Your task to perform on an android device: turn on showing notifications on the lock screen Image 0: 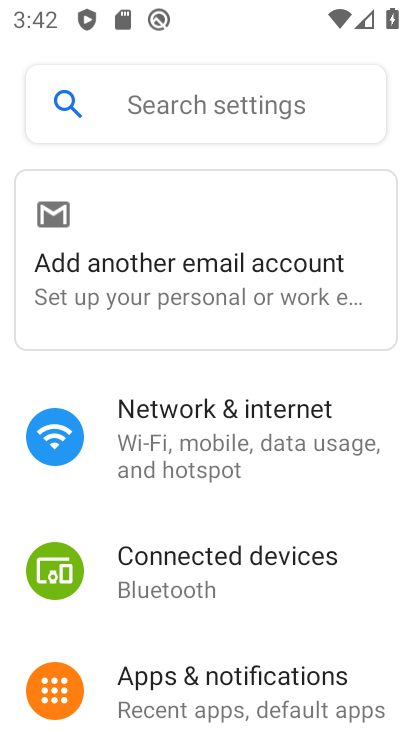
Step 0: drag from (376, 603) to (363, 271)
Your task to perform on an android device: turn on showing notifications on the lock screen Image 1: 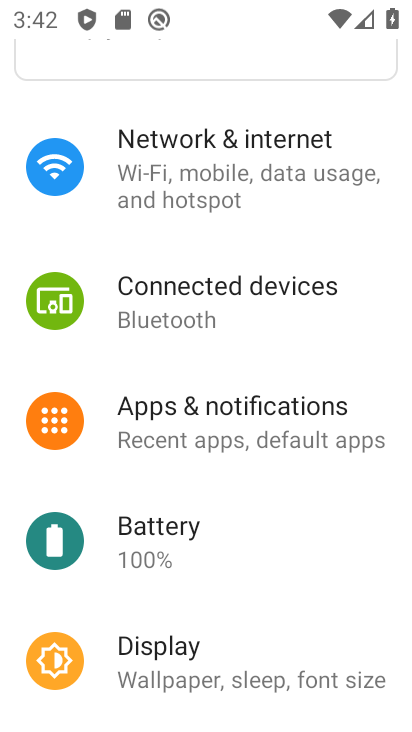
Step 1: drag from (355, 581) to (371, 323)
Your task to perform on an android device: turn on showing notifications on the lock screen Image 2: 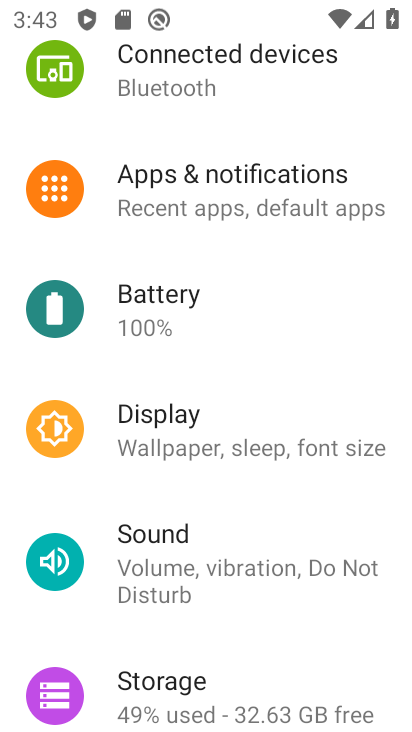
Step 2: drag from (379, 585) to (383, 330)
Your task to perform on an android device: turn on showing notifications on the lock screen Image 3: 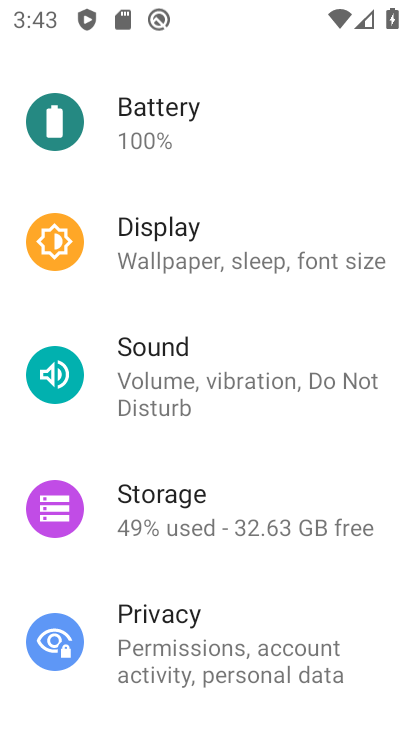
Step 3: drag from (373, 652) to (367, 337)
Your task to perform on an android device: turn on showing notifications on the lock screen Image 4: 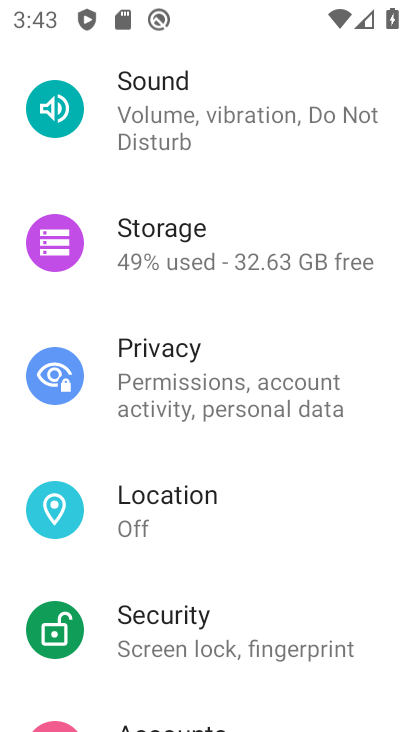
Step 4: drag from (353, 554) to (350, 351)
Your task to perform on an android device: turn on showing notifications on the lock screen Image 5: 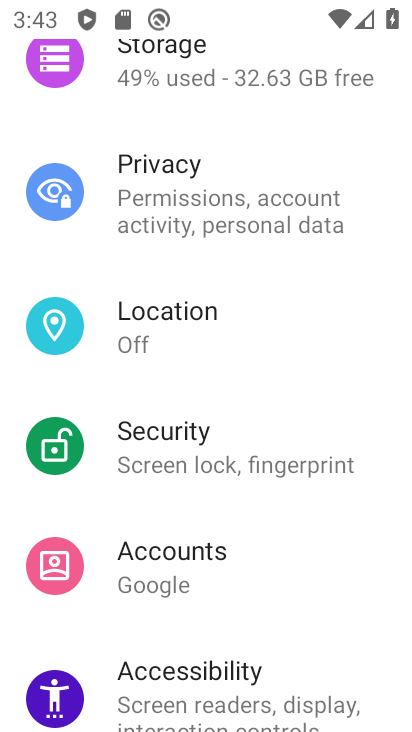
Step 5: drag from (381, 206) to (354, 464)
Your task to perform on an android device: turn on showing notifications on the lock screen Image 6: 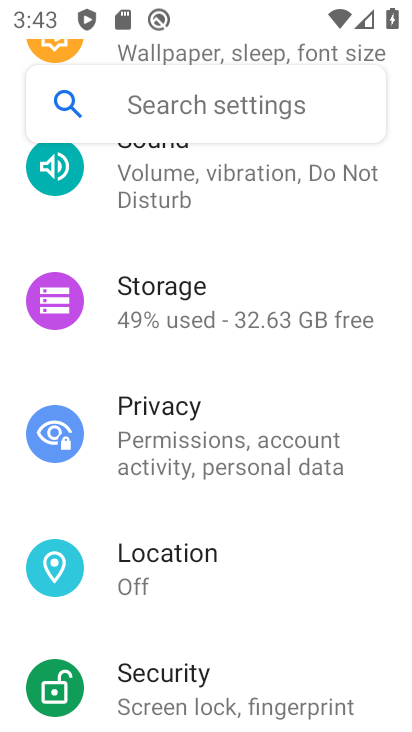
Step 6: drag from (381, 239) to (370, 478)
Your task to perform on an android device: turn on showing notifications on the lock screen Image 7: 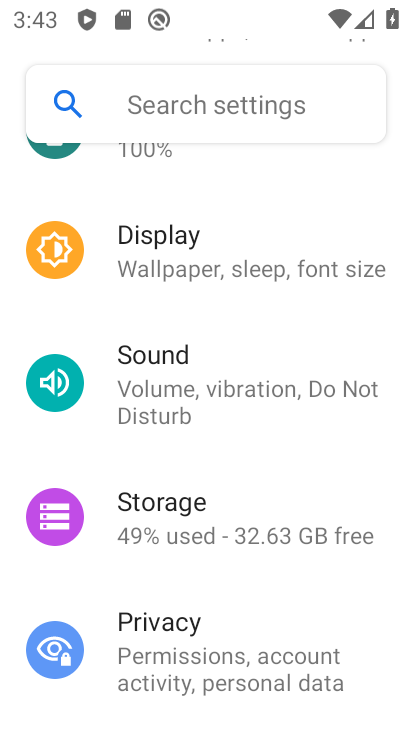
Step 7: drag from (381, 208) to (379, 423)
Your task to perform on an android device: turn on showing notifications on the lock screen Image 8: 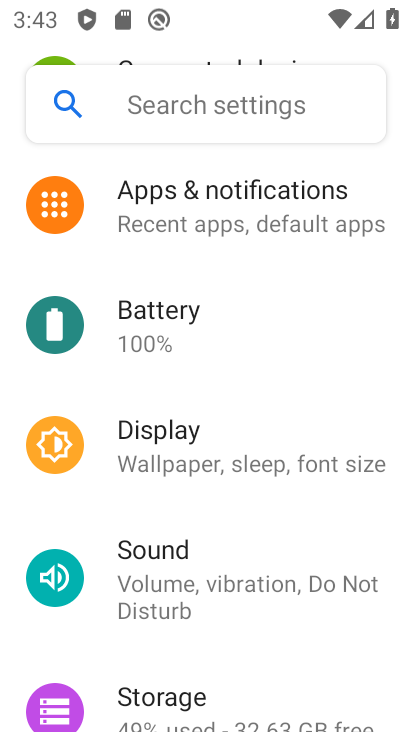
Step 8: click (242, 213)
Your task to perform on an android device: turn on showing notifications on the lock screen Image 9: 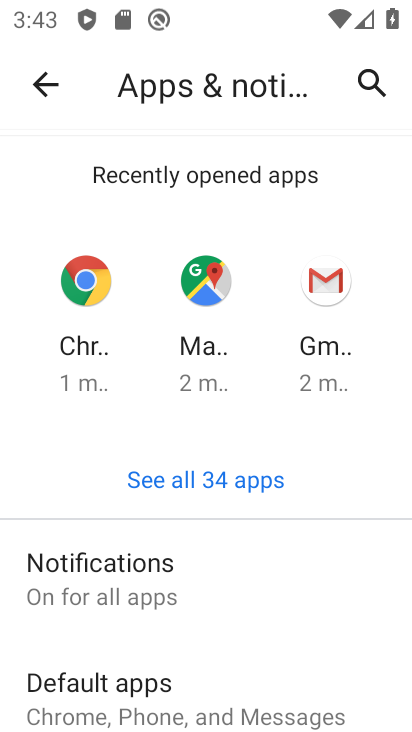
Step 9: click (137, 582)
Your task to perform on an android device: turn on showing notifications on the lock screen Image 10: 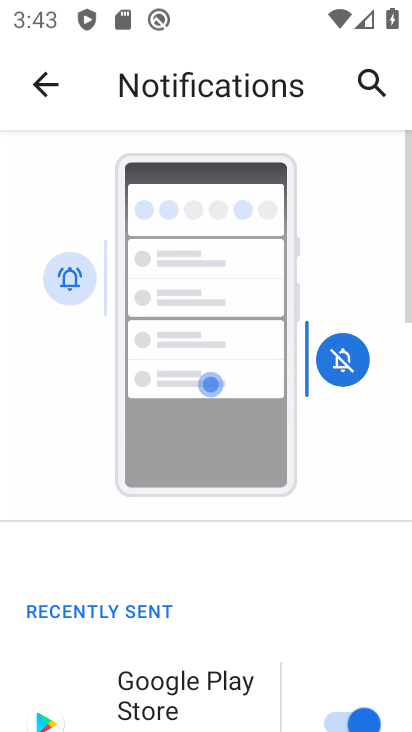
Step 10: drag from (299, 585) to (288, 284)
Your task to perform on an android device: turn on showing notifications on the lock screen Image 11: 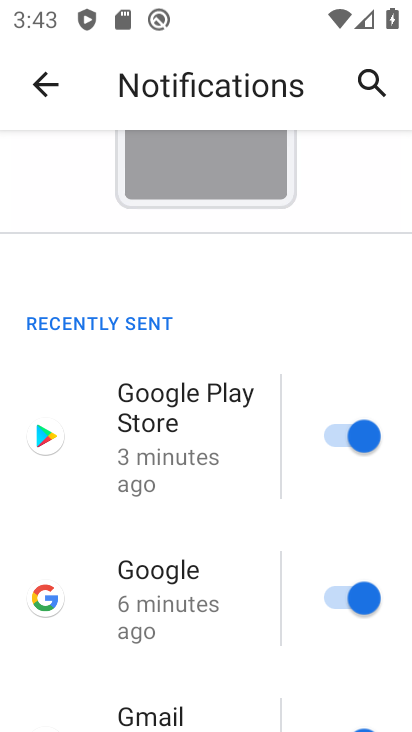
Step 11: drag from (216, 510) to (220, 211)
Your task to perform on an android device: turn on showing notifications on the lock screen Image 12: 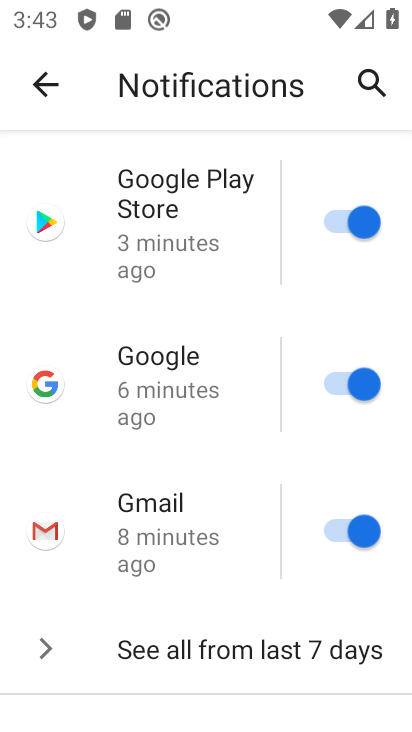
Step 12: drag from (233, 572) to (238, 284)
Your task to perform on an android device: turn on showing notifications on the lock screen Image 13: 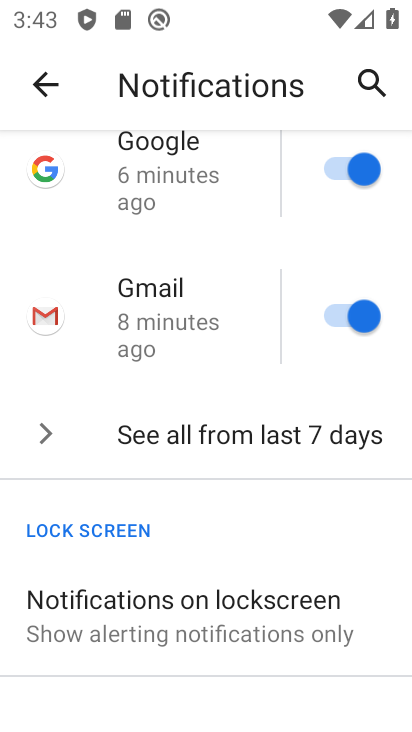
Step 13: click (225, 612)
Your task to perform on an android device: turn on showing notifications on the lock screen Image 14: 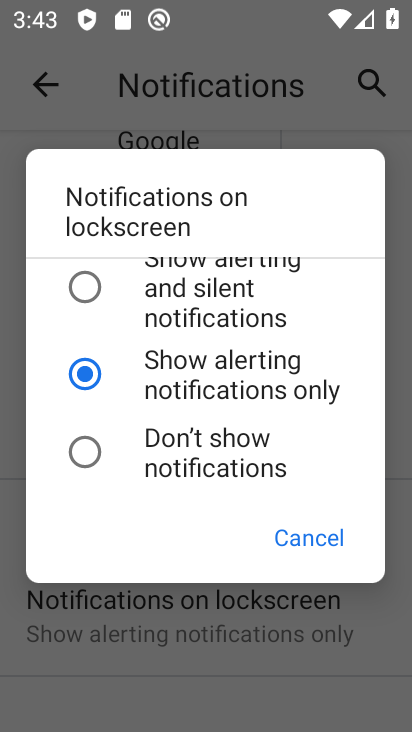
Step 14: task complete